Your task to perform on an android device: What's the weather going to be tomorrow? Image 0: 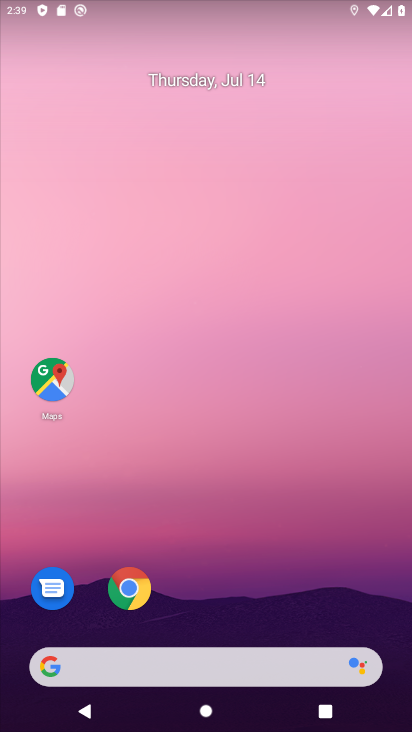
Step 0: click (148, 659)
Your task to perform on an android device: What's the weather going to be tomorrow? Image 1: 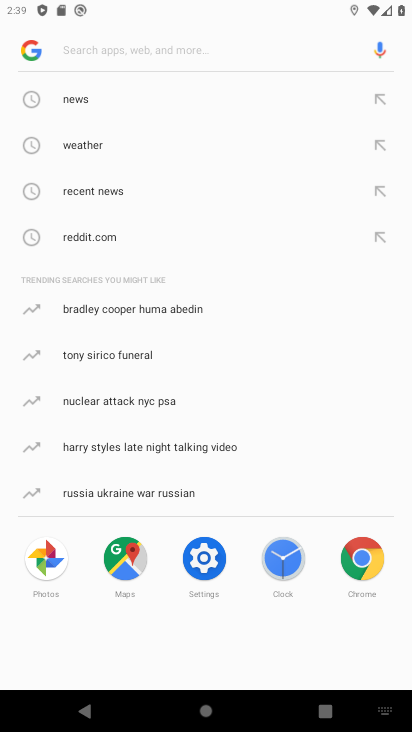
Step 1: click (78, 149)
Your task to perform on an android device: What's the weather going to be tomorrow? Image 2: 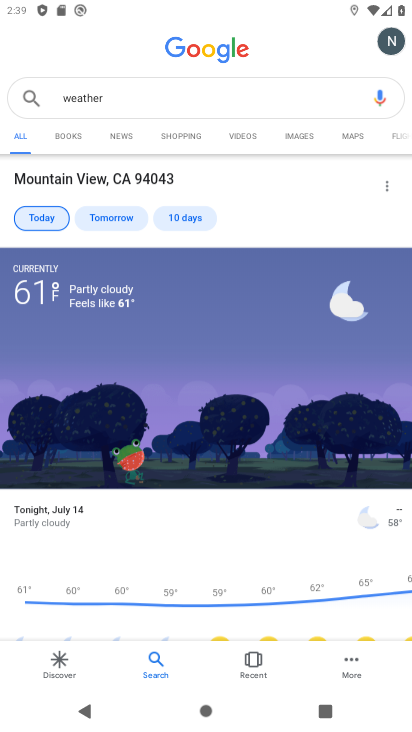
Step 2: click (96, 225)
Your task to perform on an android device: What's the weather going to be tomorrow? Image 3: 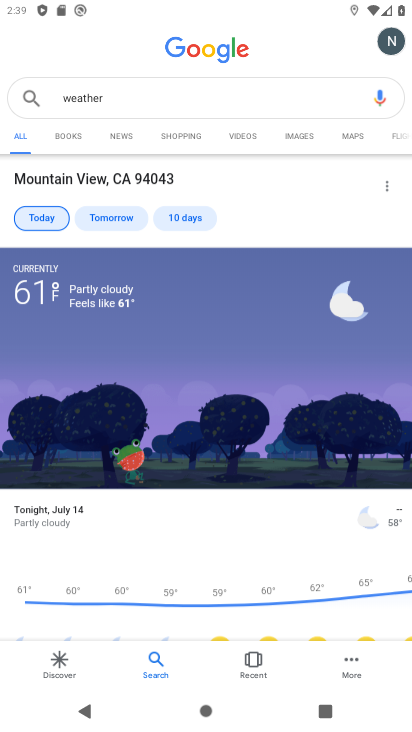
Step 3: click (96, 225)
Your task to perform on an android device: What's the weather going to be tomorrow? Image 4: 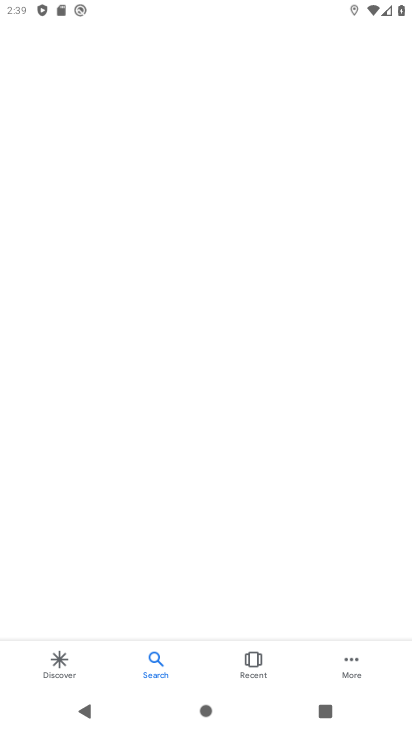
Step 4: click (96, 225)
Your task to perform on an android device: What's the weather going to be tomorrow? Image 5: 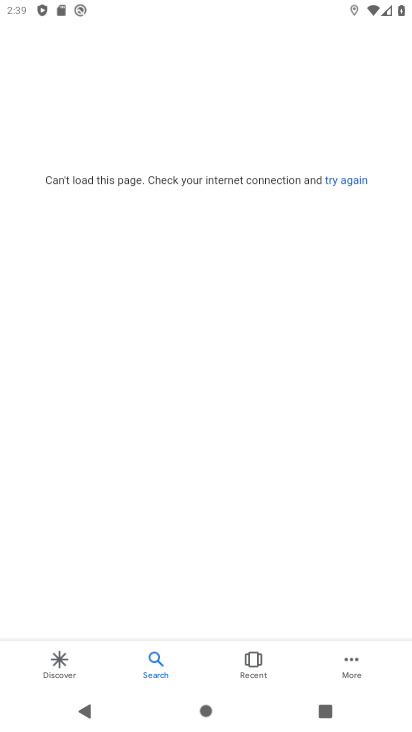
Step 5: click (340, 185)
Your task to perform on an android device: What's the weather going to be tomorrow? Image 6: 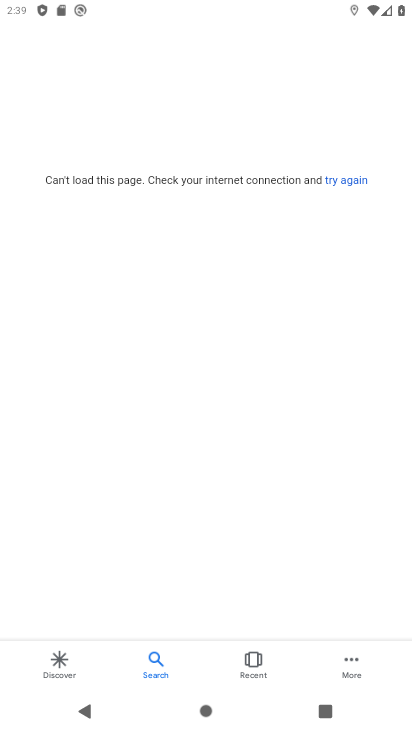
Step 6: click (340, 185)
Your task to perform on an android device: What's the weather going to be tomorrow? Image 7: 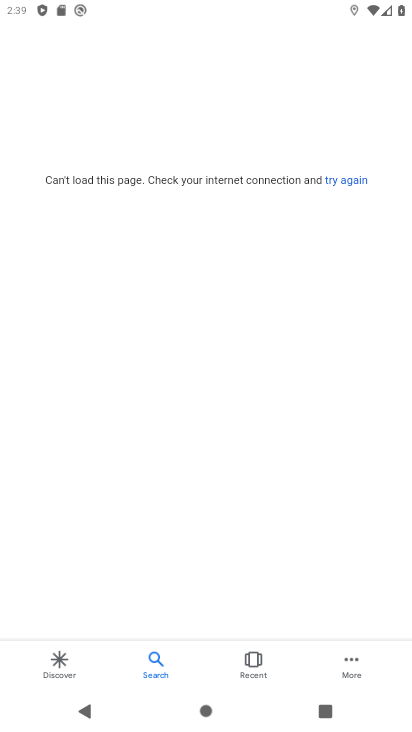
Step 7: task complete